Your task to perform on an android device: Go to ESPN.com Image 0: 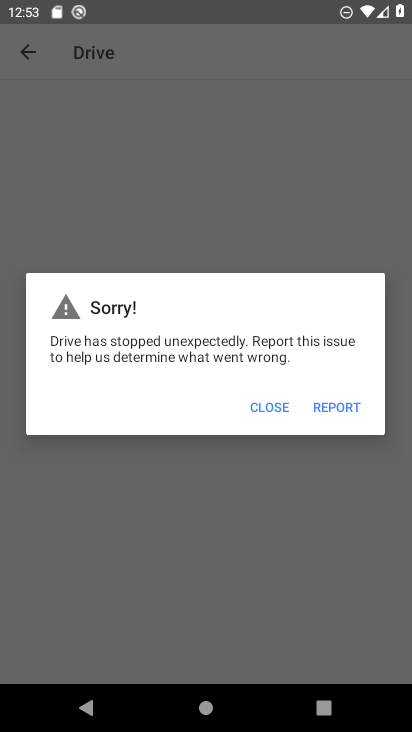
Step 0: press home button
Your task to perform on an android device: Go to ESPN.com Image 1: 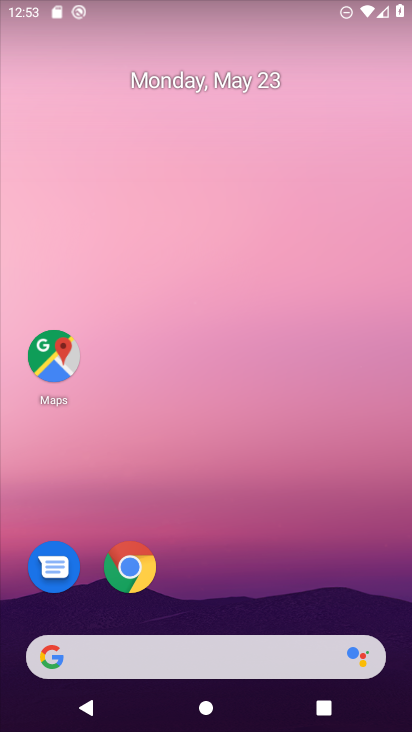
Step 1: click (172, 667)
Your task to perform on an android device: Go to ESPN.com Image 2: 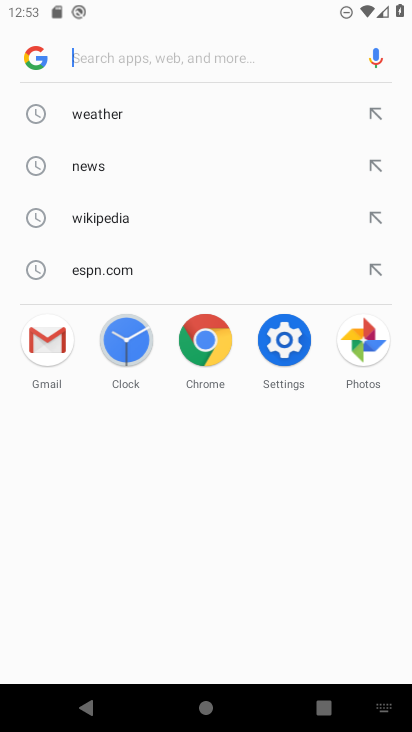
Step 2: click (194, 291)
Your task to perform on an android device: Go to ESPN.com Image 3: 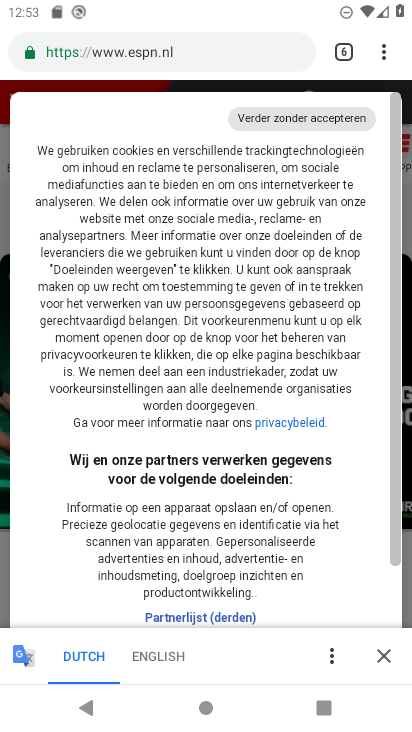
Step 3: task complete